Your task to perform on an android device: Go to Amazon Image 0: 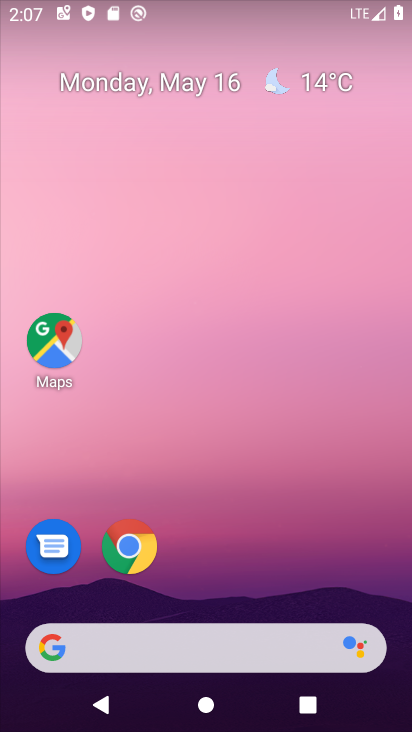
Step 0: drag from (233, 662) to (285, 217)
Your task to perform on an android device: Go to Amazon Image 1: 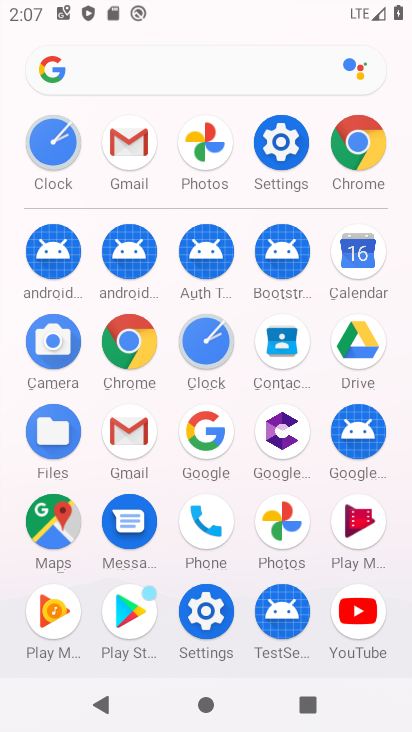
Step 1: click (354, 143)
Your task to perform on an android device: Go to Amazon Image 2: 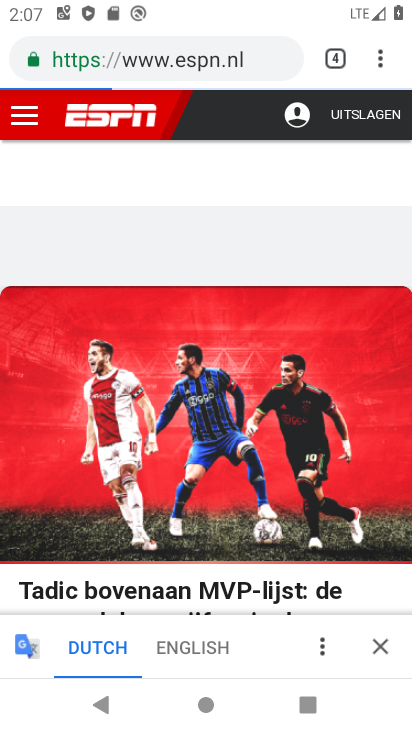
Step 2: click (337, 66)
Your task to perform on an android device: Go to Amazon Image 3: 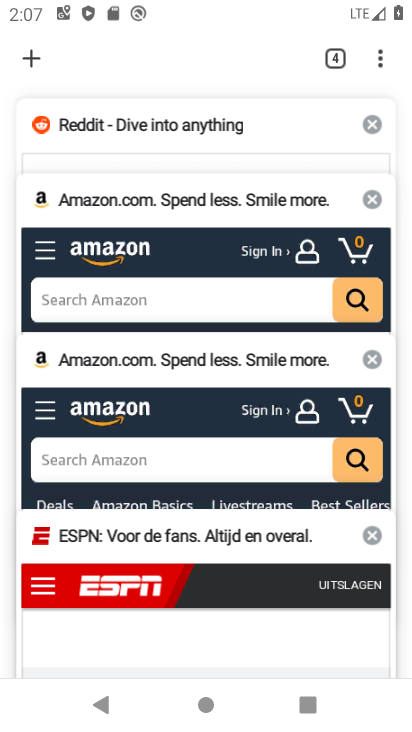
Step 3: click (43, 58)
Your task to perform on an android device: Go to Amazon Image 4: 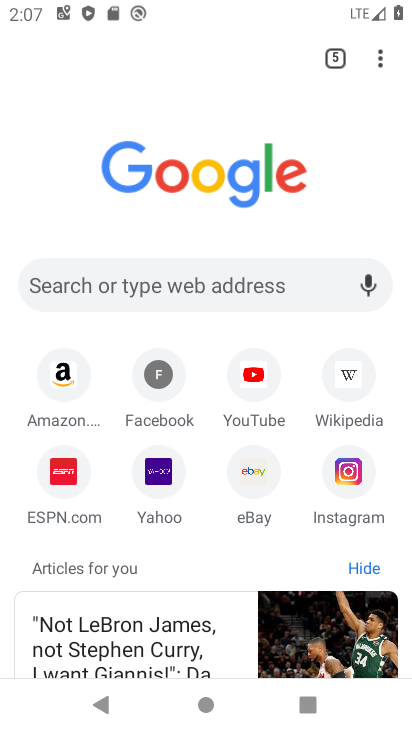
Step 4: click (64, 386)
Your task to perform on an android device: Go to Amazon Image 5: 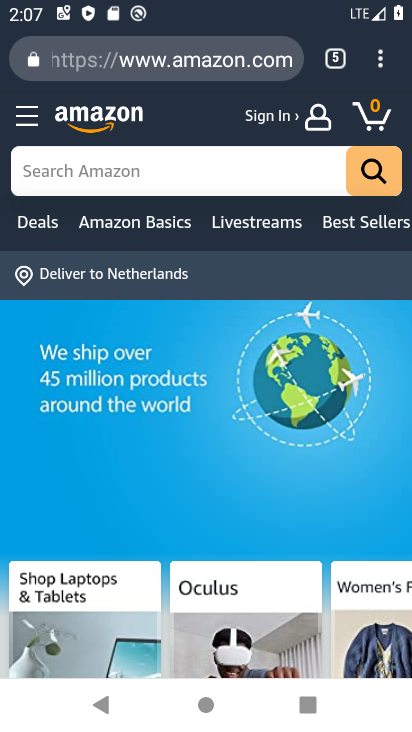
Step 5: task complete